Your task to perform on an android device: Open Google Image 0: 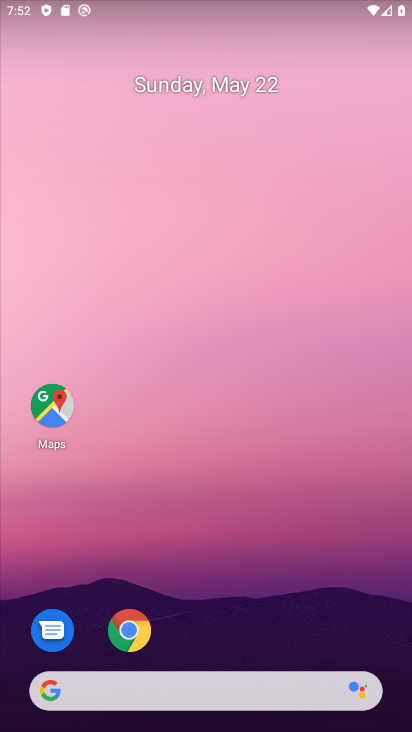
Step 0: click (229, 702)
Your task to perform on an android device: Open Google Image 1: 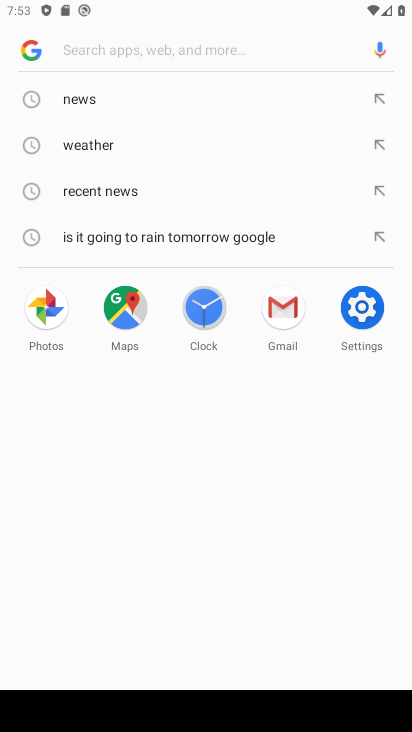
Step 1: type "google.com"
Your task to perform on an android device: Open Google Image 2: 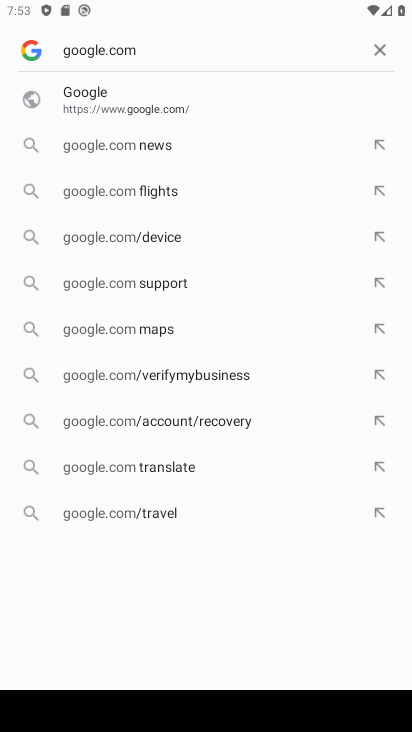
Step 2: click (136, 87)
Your task to perform on an android device: Open Google Image 3: 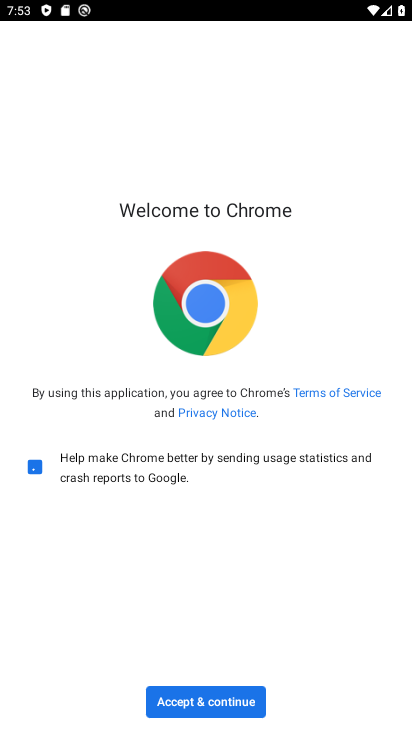
Step 3: task complete